Your task to perform on an android device: add a contact Image 0: 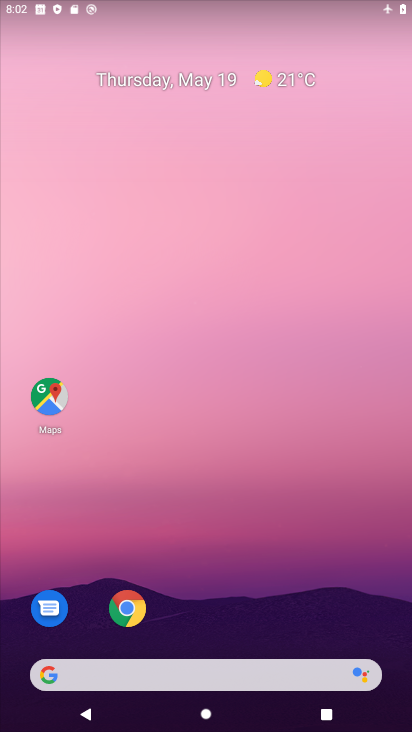
Step 0: drag from (249, 556) to (132, 31)
Your task to perform on an android device: add a contact Image 1: 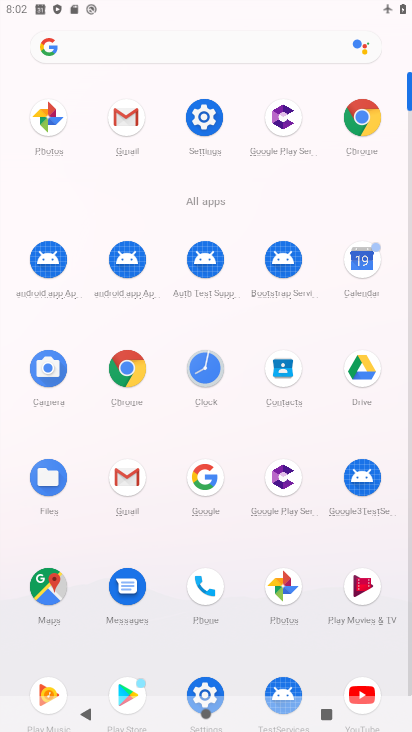
Step 1: click (284, 373)
Your task to perform on an android device: add a contact Image 2: 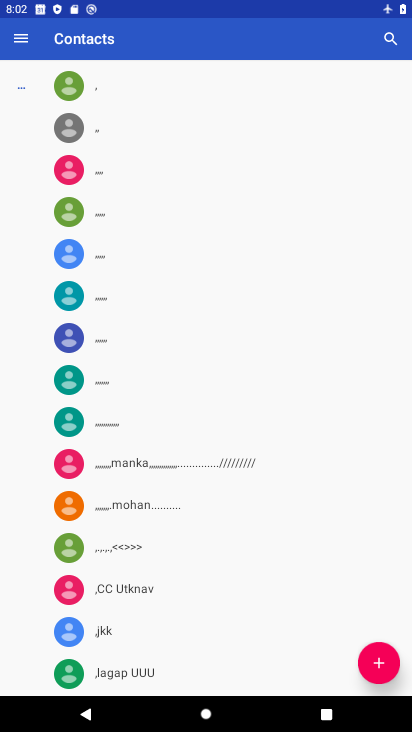
Step 2: click (380, 631)
Your task to perform on an android device: add a contact Image 3: 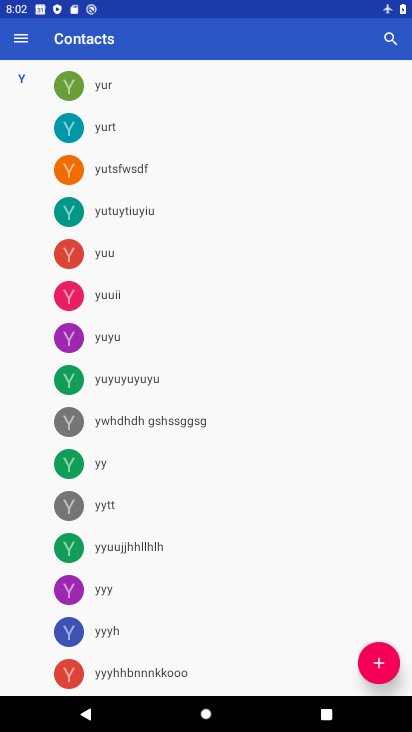
Step 3: click (381, 668)
Your task to perform on an android device: add a contact Image 4: 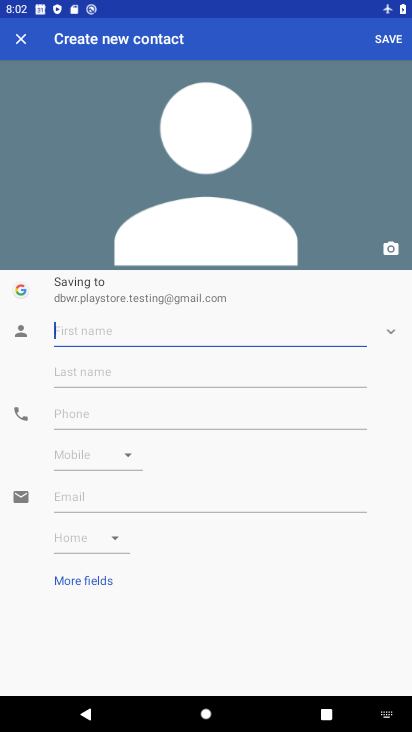
Step 4: type "iuytfd"
Your task to perform on an android device: add a contact Image 5: 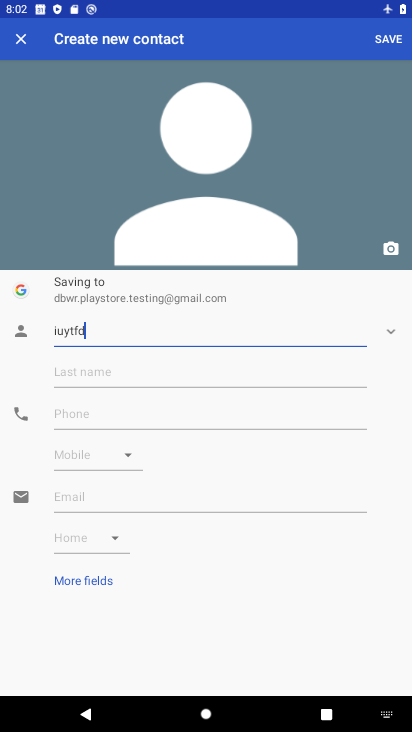
Step 5: click (126, 417)
Your task to perform on an android device: add a contact Image 6: 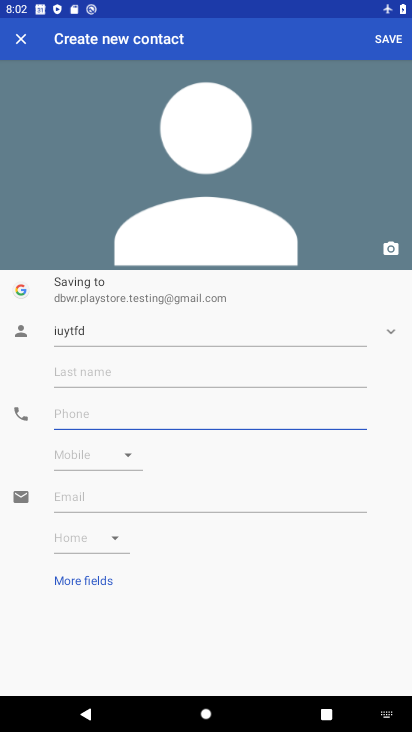
Step 6: type "87"
Your task to perform on an android device: add a contact Image 7: 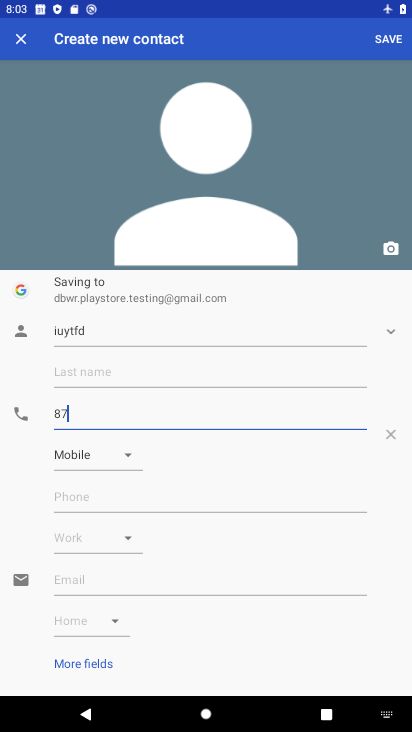
Step 7: click (388, 33)
Your task to perform on an android device: add a contact Image 8: 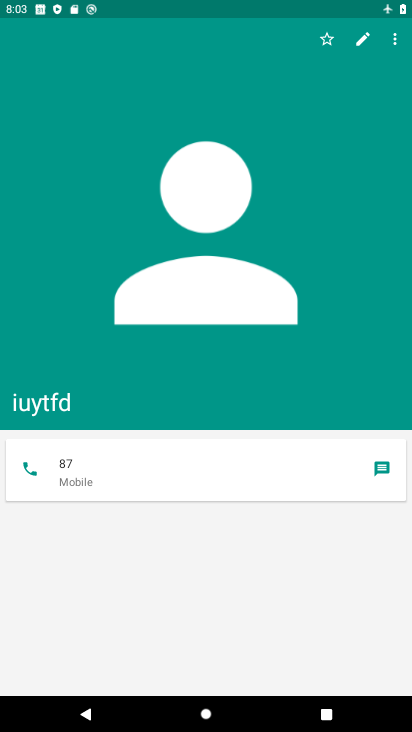
Step 8: task complete